Your task to perform on an android device: turn on translation in the chrome app Image 0: 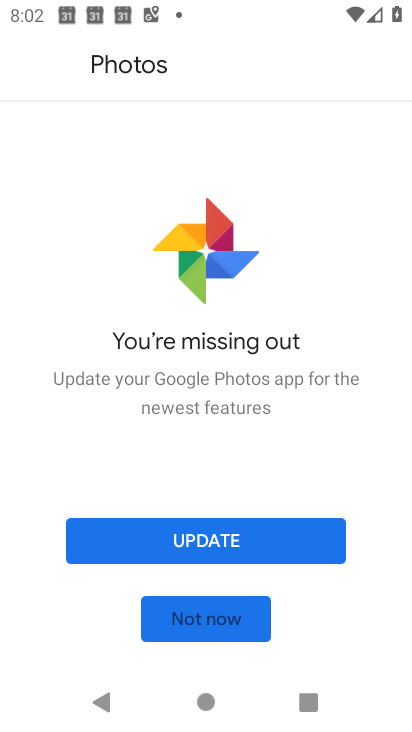
Step 0: press back button
Your task to perform on an android device: turn on translation in the chrome app Image 1: 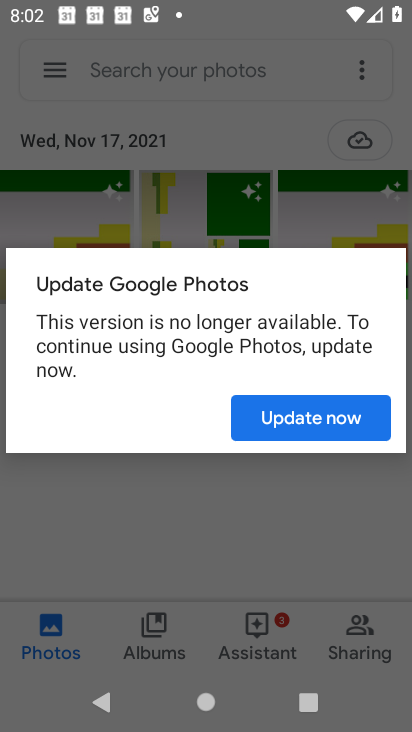
Step 1: press back button
Your task to perform on an android device: turn on translation in the chrome app Image 2: 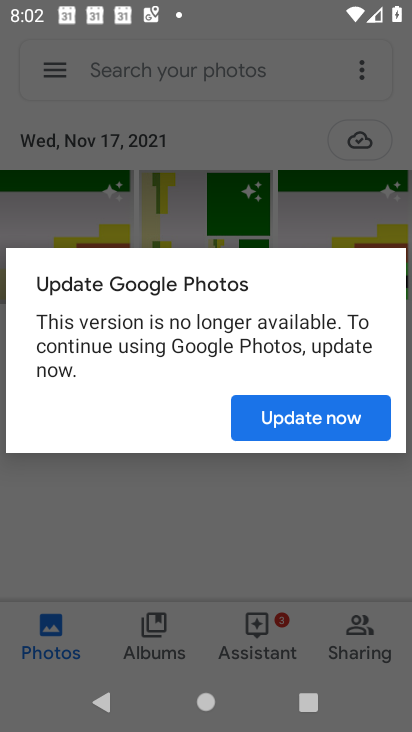
Step 2: press home button
Your task to perform on an android device: turn on translation in the chrome app Image 3: 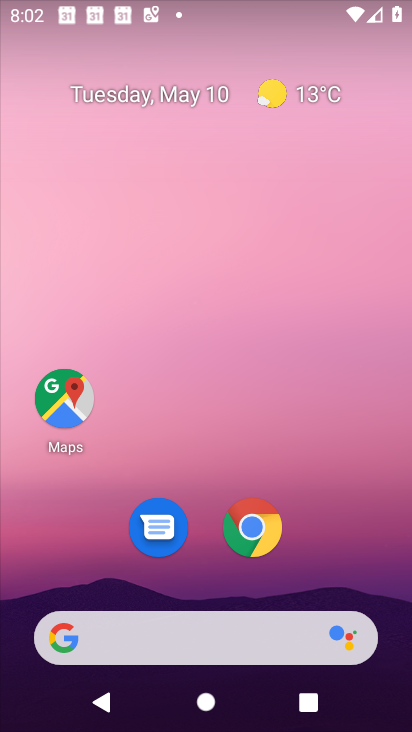
Step 3: click (241, 530)
Your task to perform on an android device: turn on translation in the chrome app Image 4: 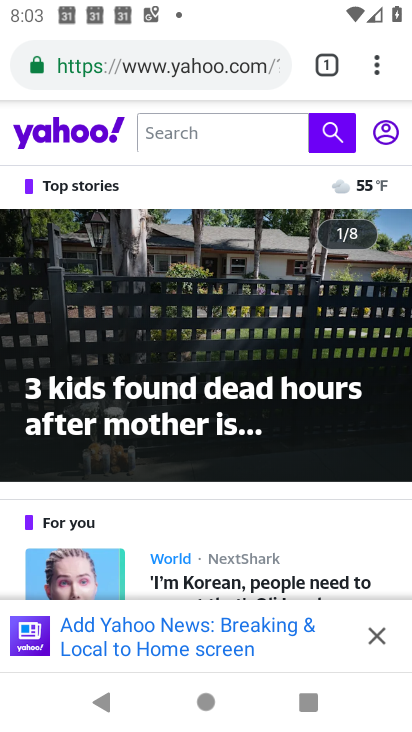
Step 4: click (378, 64)
Your task to perform on an android device: turn on translation in the chrome app Image 5: 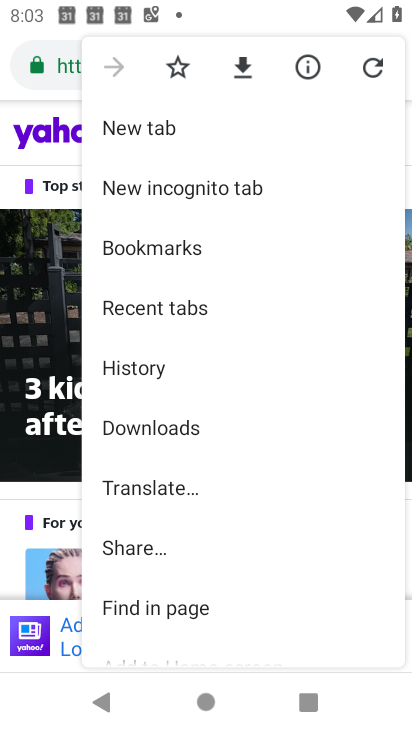
Step 5: drag from (122, 609) to (259, 231)
Your task to perform on an android device: turn on translation in the chrome app Image 6: 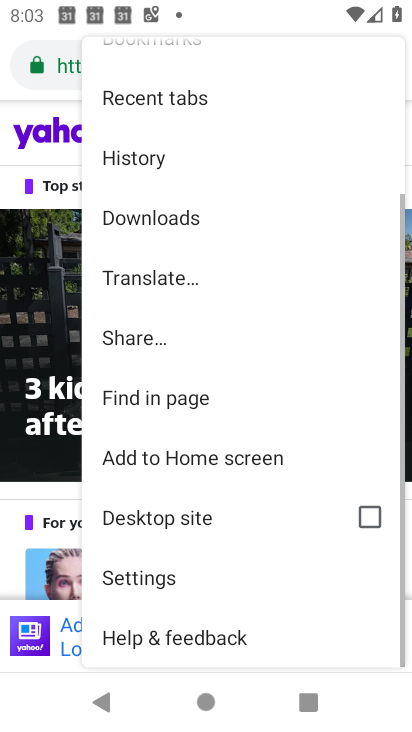
Step 6: click (154, 568)
Your task to perform on an android device: turn on translation in the chrome app Image 7: 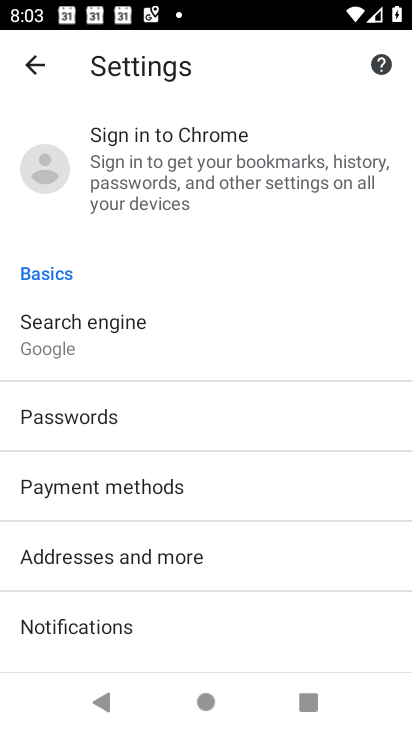
Step 7: drag from (125, 536) to (200, 78)
Your task to perform on an android device: turn on translation in the chrome app Image 8: 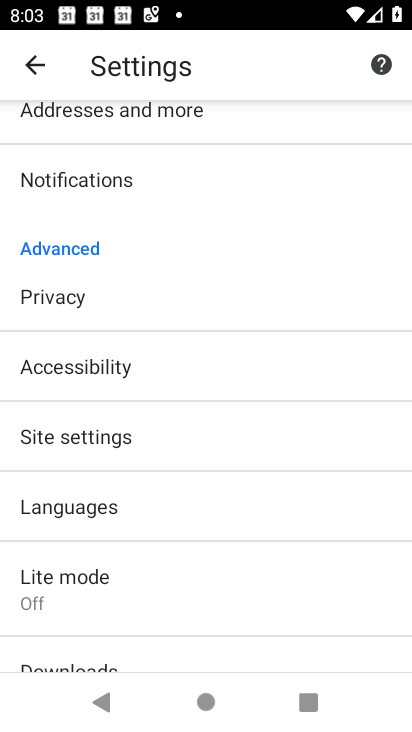
Step 8: drag from (142, 596) to (212, 202)
Your task to perform on an android device: turn on translation in the chrome app Image 9: 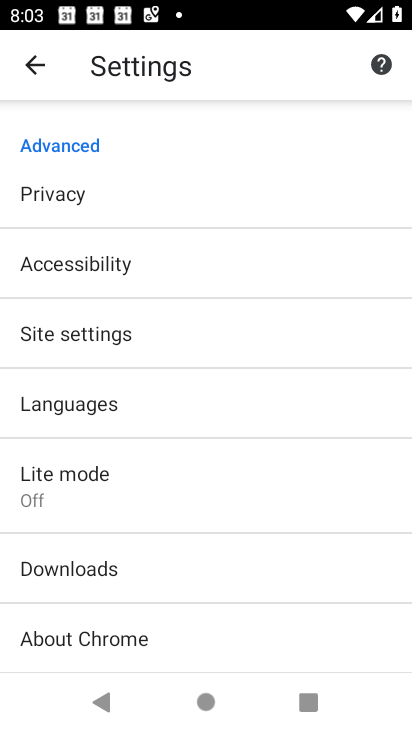
Step 9: click (94, 407)
Your task to perform on an android device: turn on translation in the chrome app Image 10: 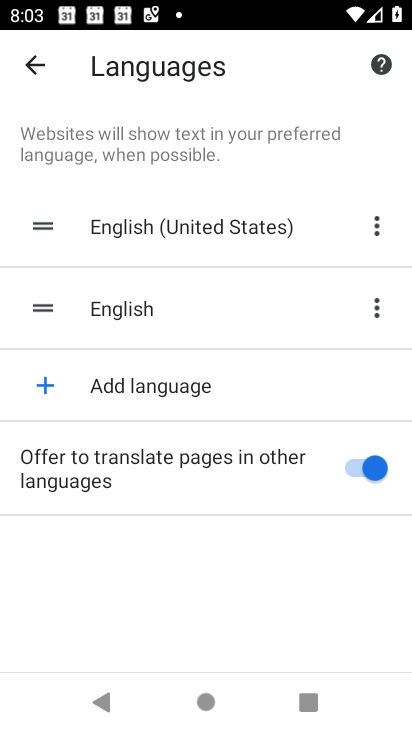
Step 10: click (374, 474)
Your task to perform on an android device: turn on translation in the chrome app Image 11: 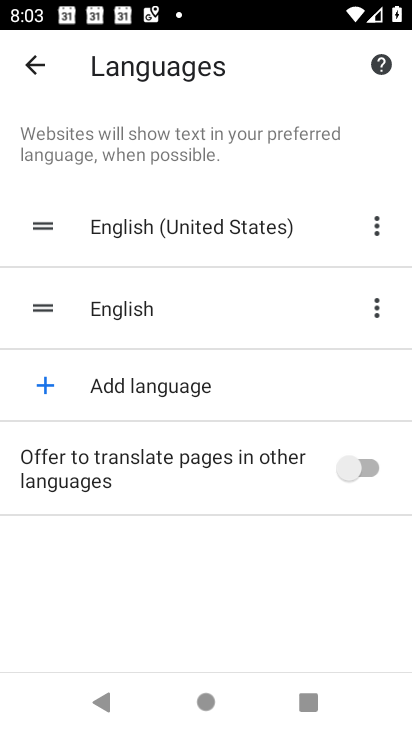
Step 11: click (359, 471)
Your task to perform on an android device: turn on translation in the chrome app Image 12: 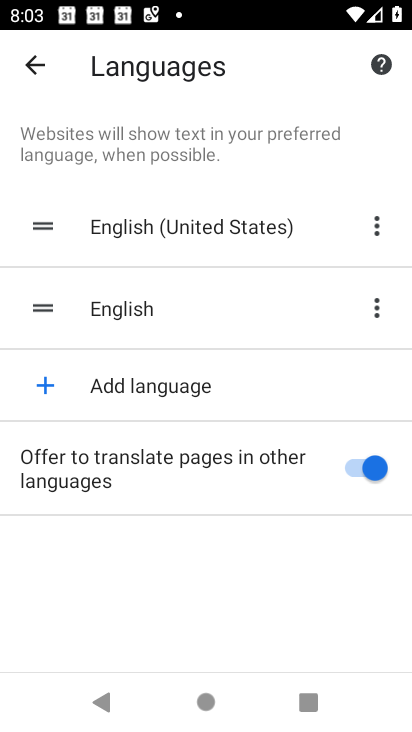
Step 12: task complete